Your task to perform on an android device: Go to Reddit.com Image 0: 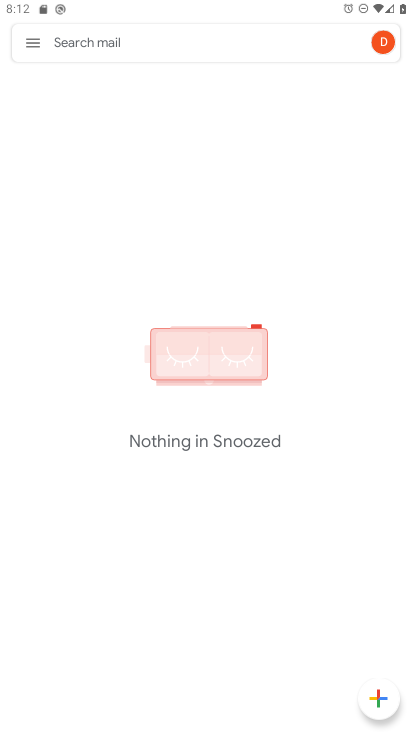
Step 0: press home button
Your task to perform on an android device: Go to Reddit.com Image 1: 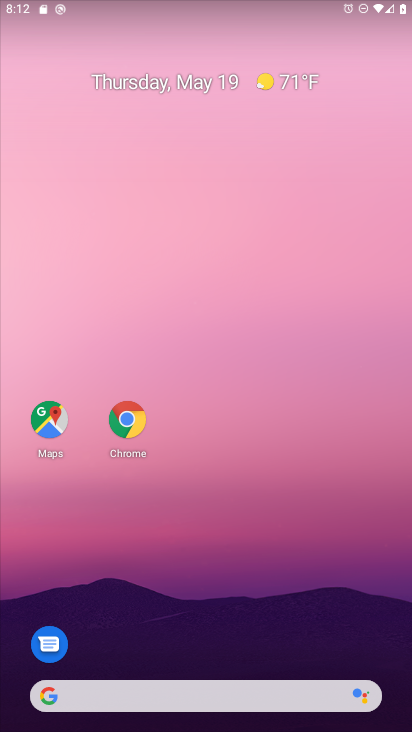
Step 1: drag from (207, 672) to (199, 380)
Your task to perform on an android device: Go to Reddit.com Image 2: 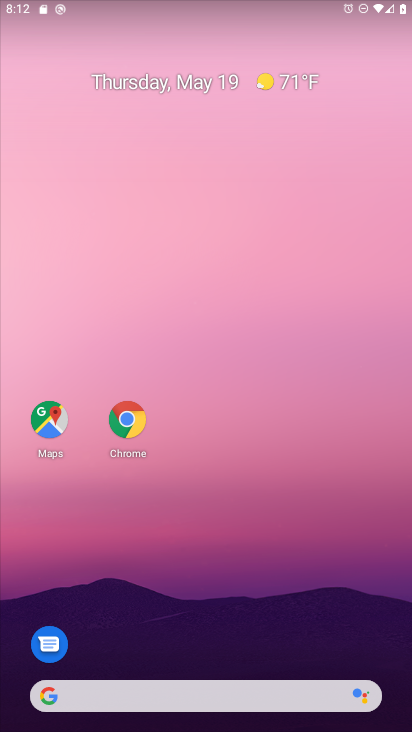
Step 2: drag from (195, 678) to (209, 267)
Your task to perform on an android device: Go to Reddit.com Image 3: 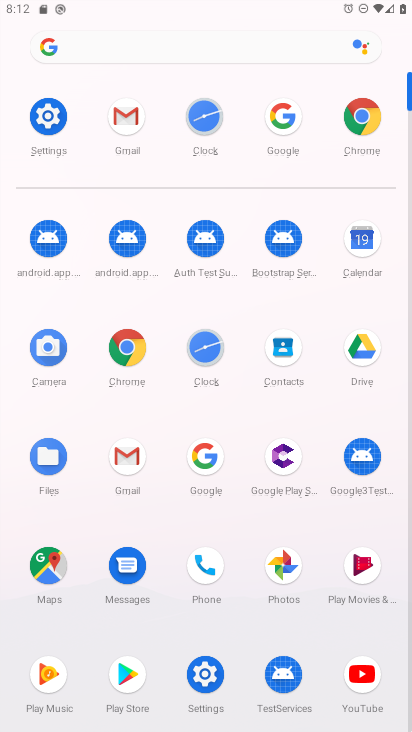
Step 3: click (201, 457)
Your task to perform on an android device: Go to Reddit.com Image 4: 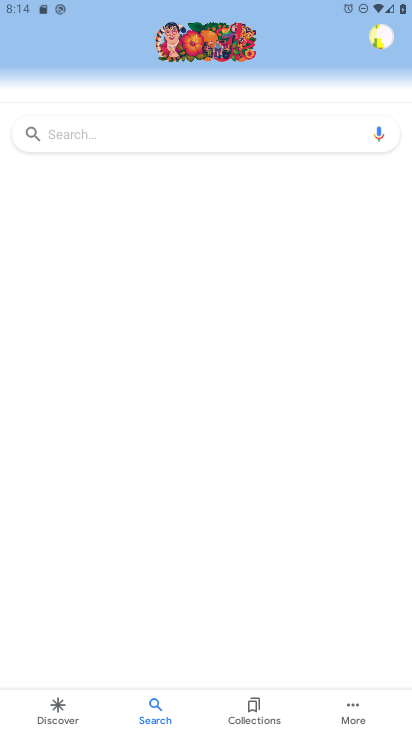
Step 4: click (211, 130)
Your task to perform on an android device: Go to Reddit.com Image 5: 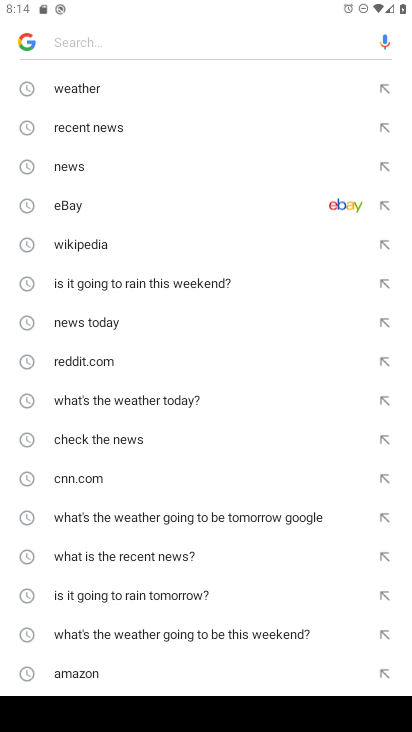
Step 5: click (72, 348)
Your task to perform on an android device: Go to Reddit.com Image 6: 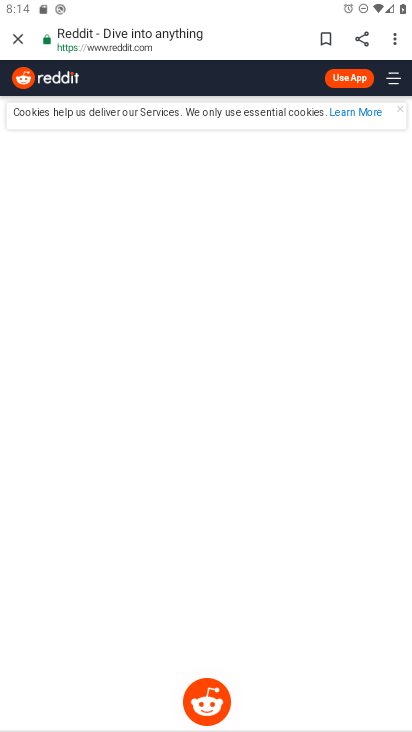
Step 6: task complete